Your task to perform on an android device: Is it going to rain this weekend? Image 0: 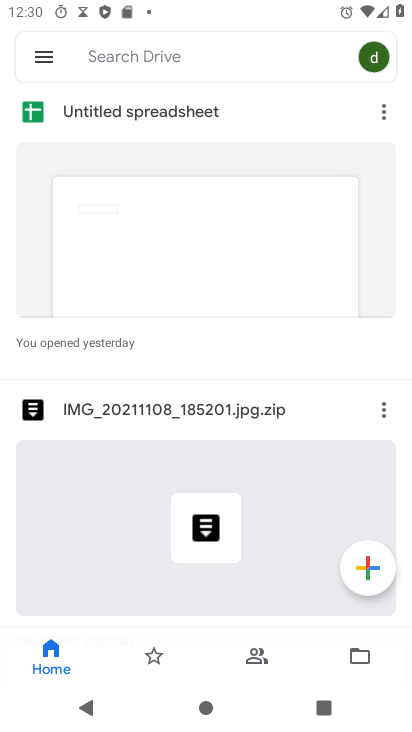
Step 0: press home button
Your task to perform on an android device: Is it going to rain this weekend? Image 1: 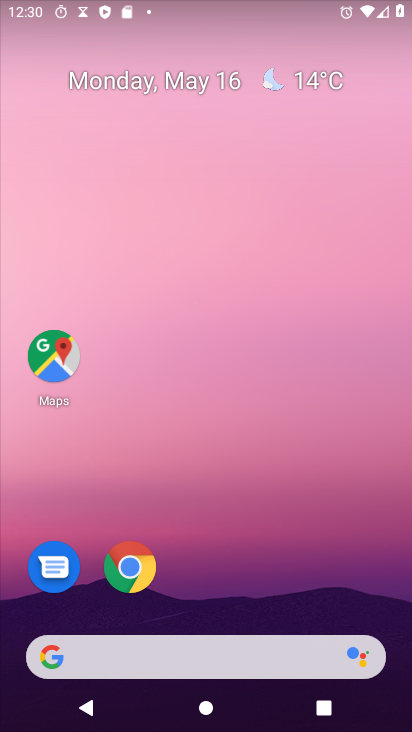
Step 1: click (209, 657)
Your task to perform on an android device: Is it going to rain this weekend? Image 2: 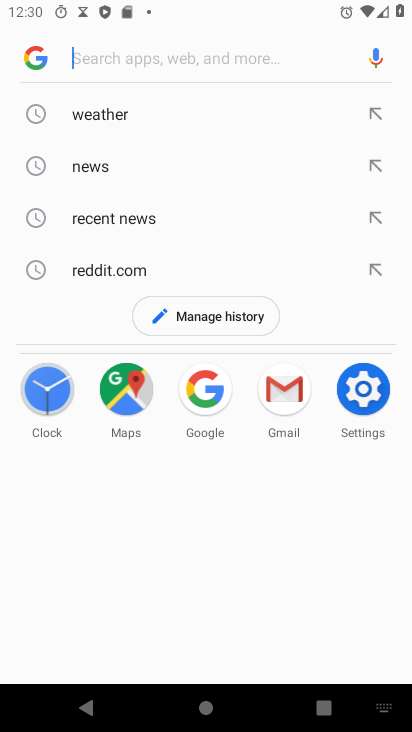
Step 2: type "is it going to rain this weekend "
Your task to perform on an android device: Is it going to rain this weekend? Image 3: 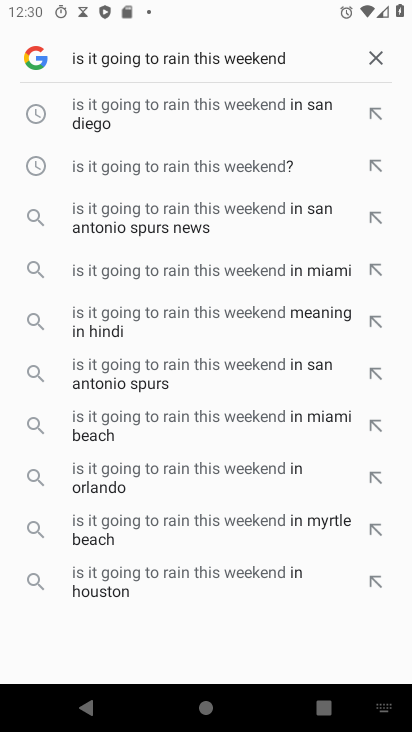
Step 3: click (151, 185)
Your task to perform on an android device: Is it going to rain this weekend? Image 4: 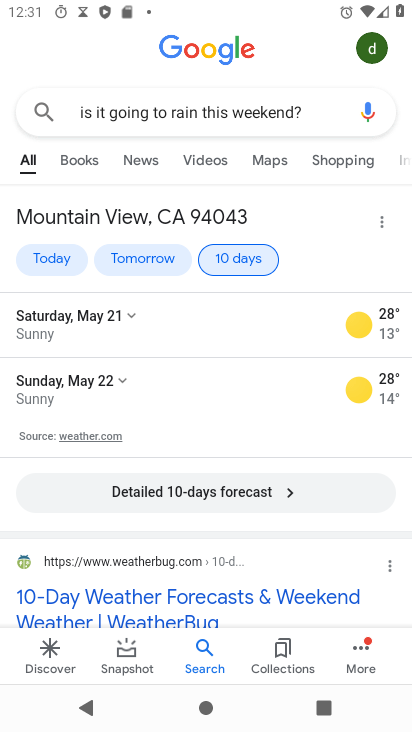
Step 4: task complete